Your task to perform on an android device: toggle pop-ups in chrome Image 0: 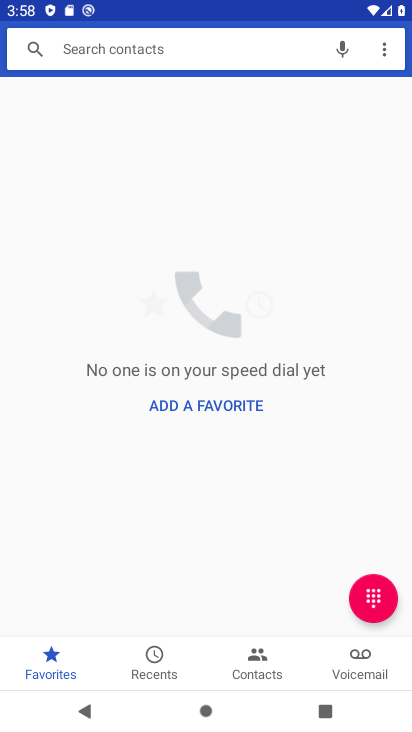
Step 0: press home button
Your task to perform on an android device: toggle pop-ups in chrome Image 1: 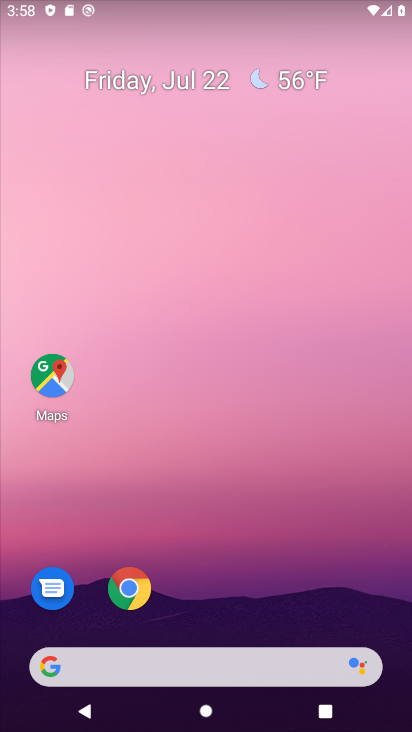
Step 1: click (141, 592)
Your task to perform on an android device: toggle pop-ups in chrome Image 2: 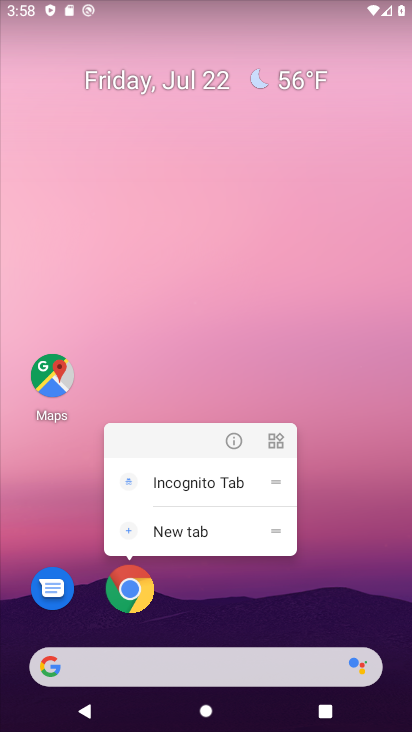
Step 2: click (147, 587)
Your task to perform on an android device: toggle pop-ups in chrome Image 3: 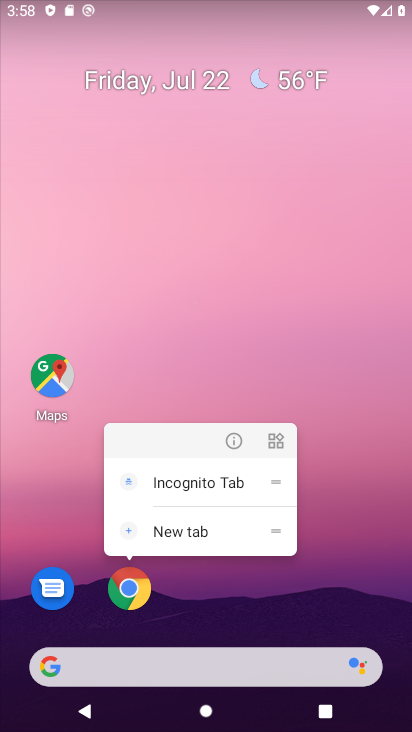
Step 3: click (147, 587)
Your task to perform on an android device: toggle pop-ups in chrome Image 4: 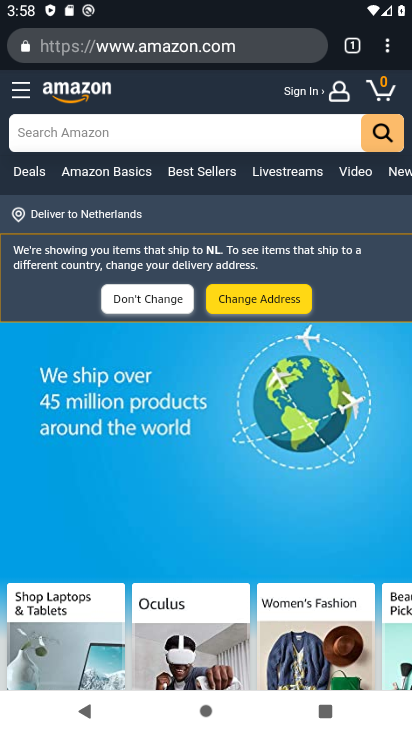
Step 4: drag from (390, 55) to (249, 515)
Your task to perform on an android device: toggle pop-ups in chrome Image 5: 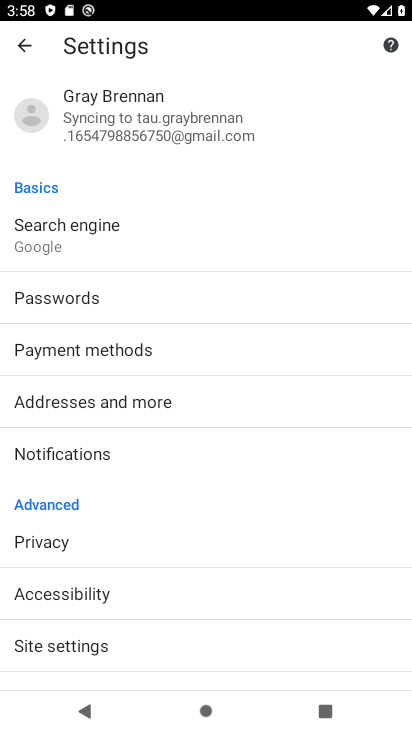
Step 5: drag from (160, 594) to (177, 374)
Your task to perform on an android device: toggle pop-ups in chrome Image 6: 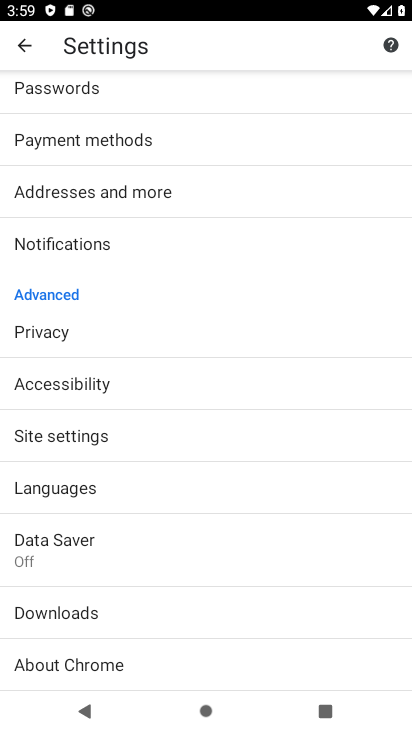
Step 6: click (100, 445)
Your task to perform on an android device: toggle pop-ups in chrome Image 7: 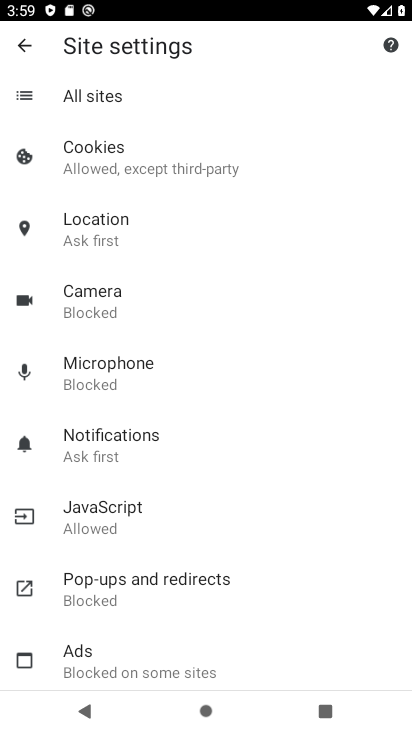
Step 7: click (196, 604)
Your task to perform on an android device: toggle pop-ups in chrome Image 8: 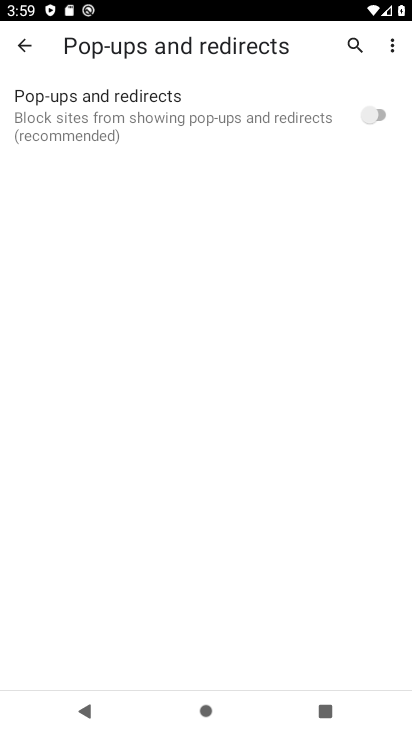
Step 8: click (386, 119)
Your task to perform on an android device: toggle pop-ups in chrome Image 9: 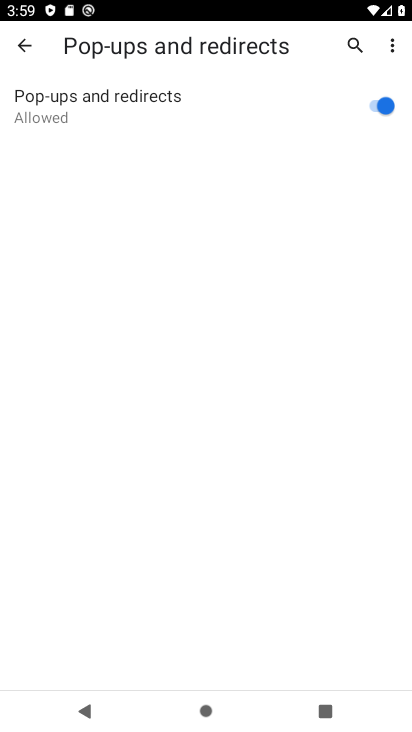
Step 9: task complete